Your task to perform on an android device: open a bookmark in the chrome app Image 0: 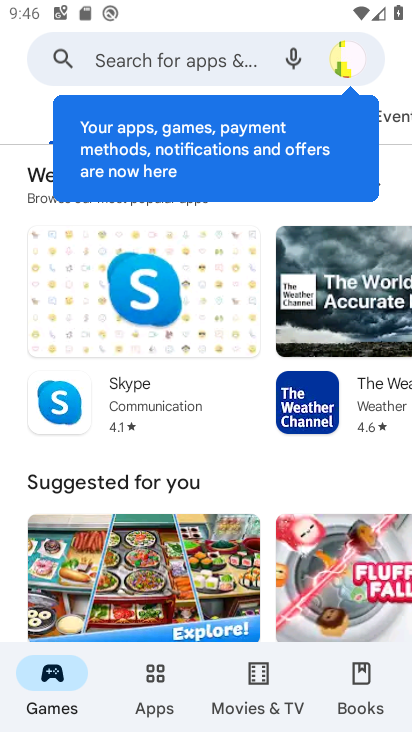
Step 0: press home button
Your task to perform on an android device: open a bookmark in the chrome app Image 1: 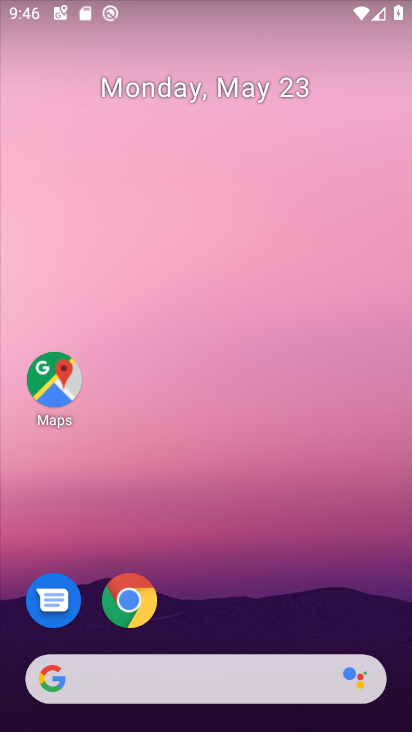
Step 1: click (128, 598)
Your task to perform on an android device: open a bookmark in the chrome app Image 2: 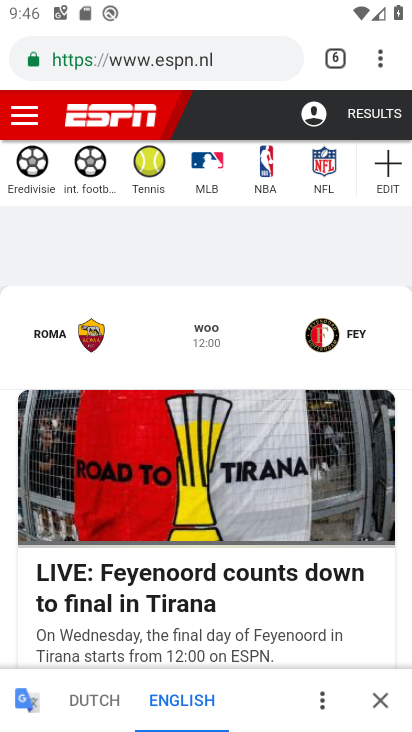
Step 2: click (382, 67)
Your task to perform on an android device: open a bookmark in the chrome app Image 3: 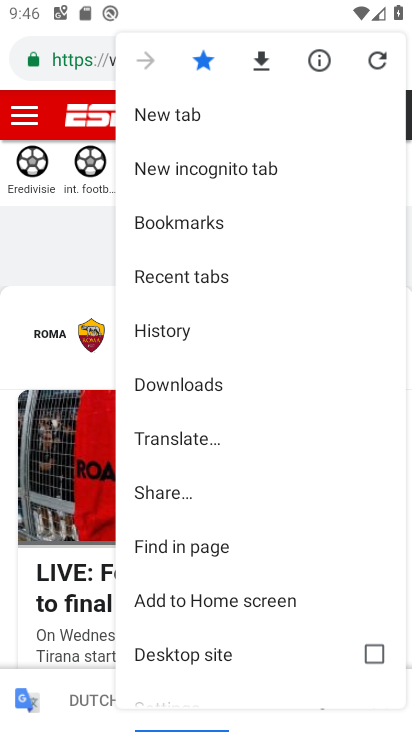
Step 3: click (182, 218)
Your task to perform on an android device: open a bookmark in the chrome app Image 4: 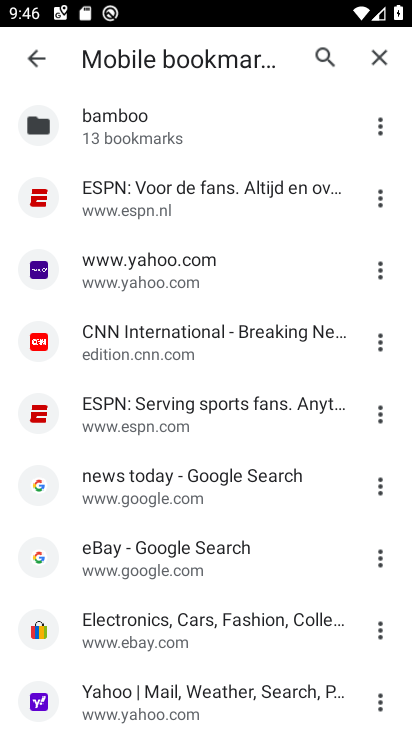
Step 4: click (147, 192)
Your task to perform on an android device: open a bookmark in the chrome app Image 5: 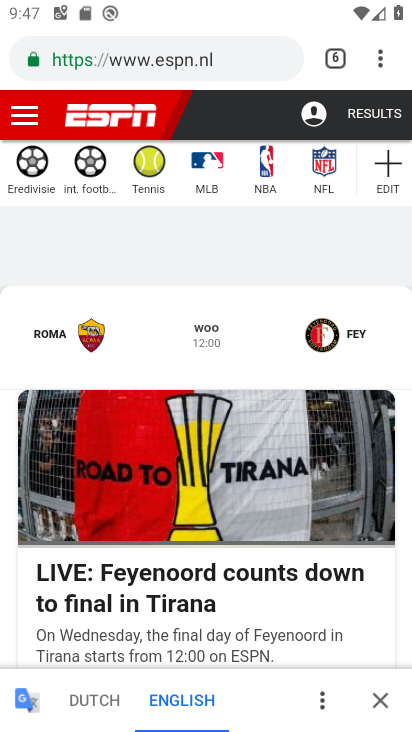
Step 5: task complete